Your task to perform on an android device: change timer sound Image 0: 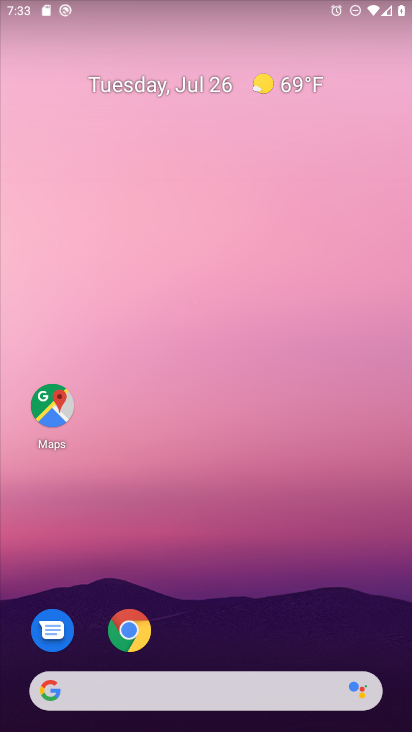
Step 0: drag from (279, 612) to (246, 53)
Your task to perform on an android device: change timer sound Image 1: 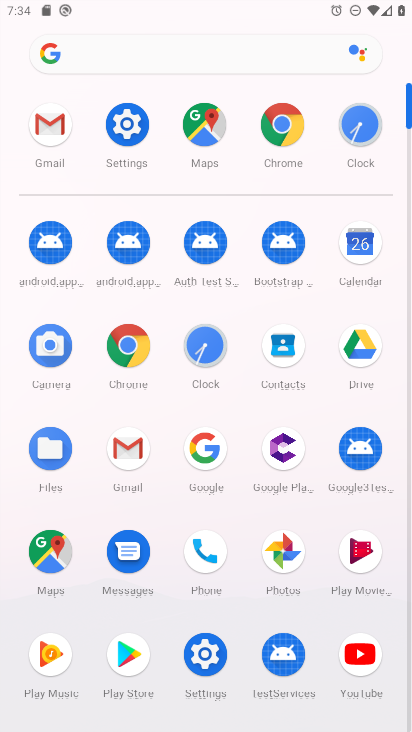
Step 1: click (188, 358)
Your task to perform on an android device: change timer sound Image 2: 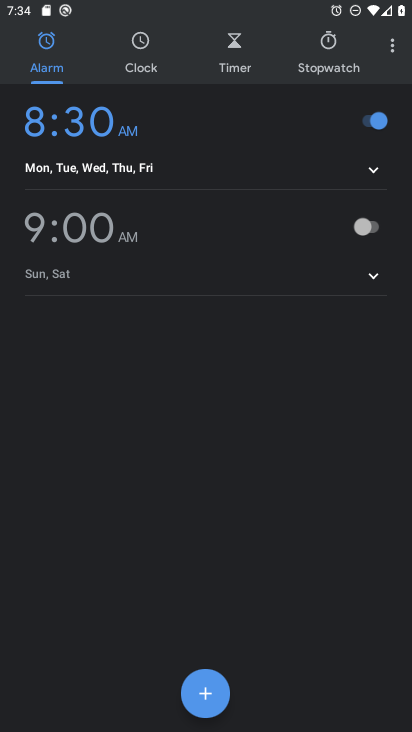
Step 2: click (390, 45)
Your task to perform on an android device: change timer sound Image 3: 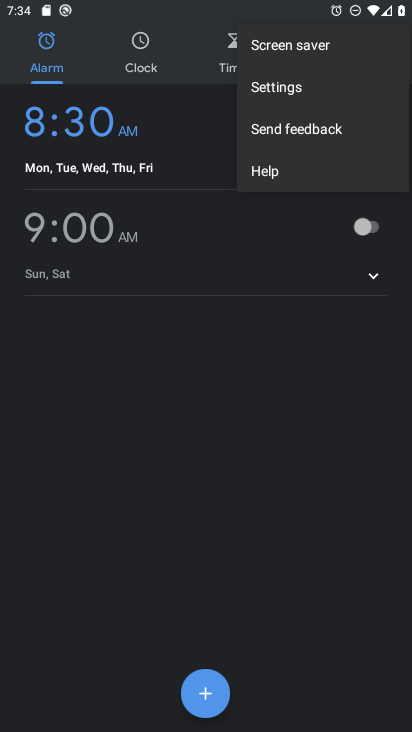
Step 3: click (307, 83)
Your task to perform on an android device: change timer sound Image 4: 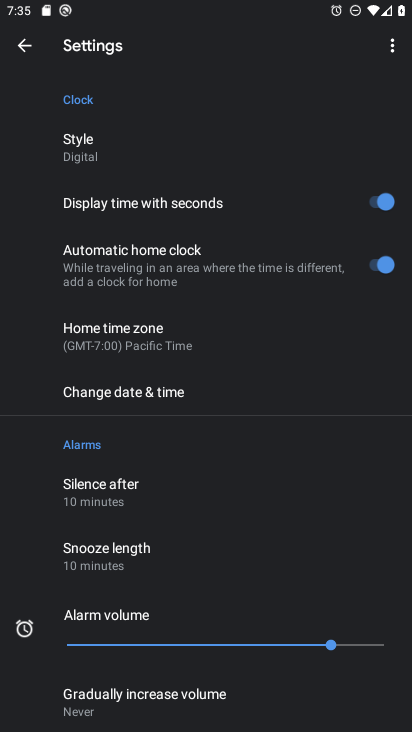
Step 4: drag from (178, 577) to (221, 347)
Your task to perform on an android device: change timer sound Image 5: 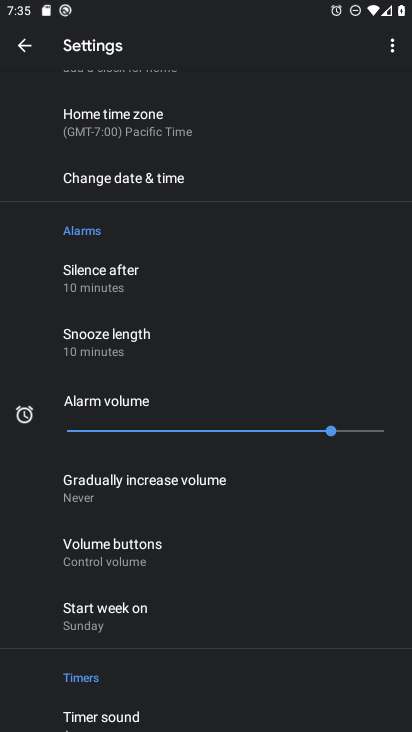
Step 5: drag from (206, 645) to (214, 433)
Your task to perform on an android device: change timer sound Image 6: 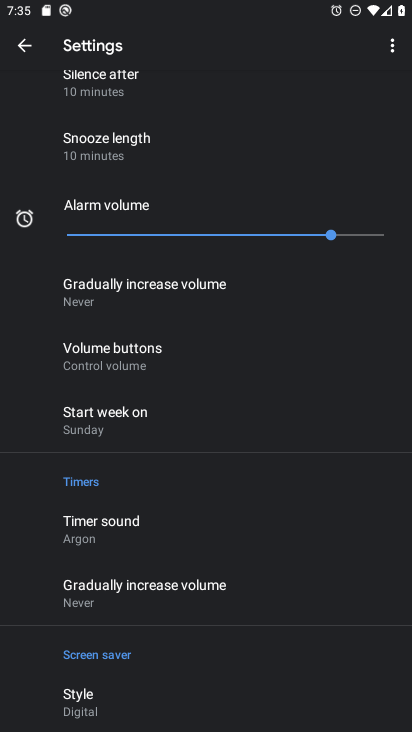
Step 6: click (172, 536)
Your task to perform on an android device: change timer sound Image 7: 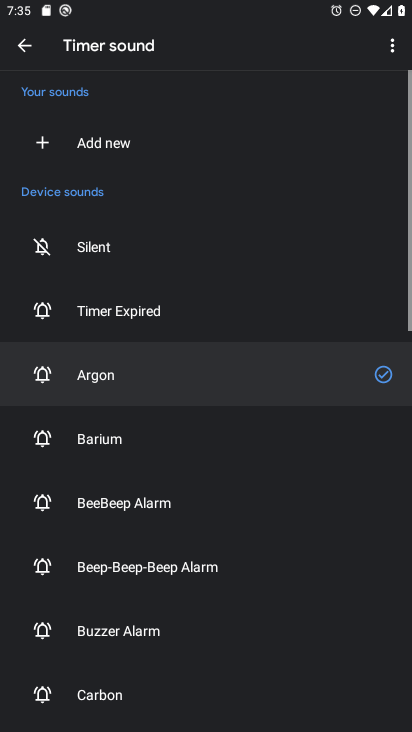
Step 7: click (161, 309)
Your task to perform on an android device: change timer sound Image 8: 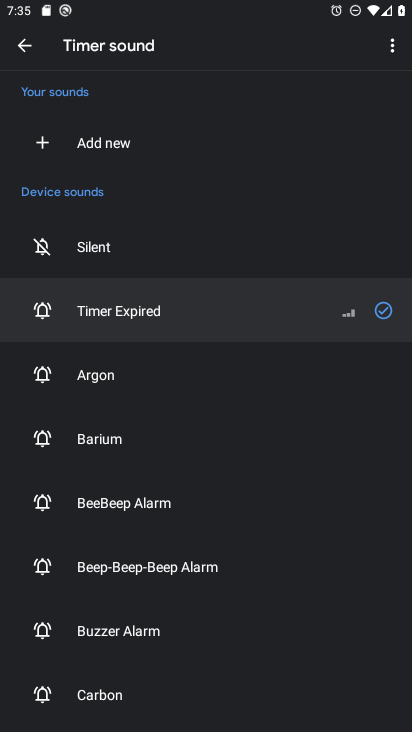
Step 8: task complete